Your task to perform on an android device: manage bookmarks in the chrome app Image 0: 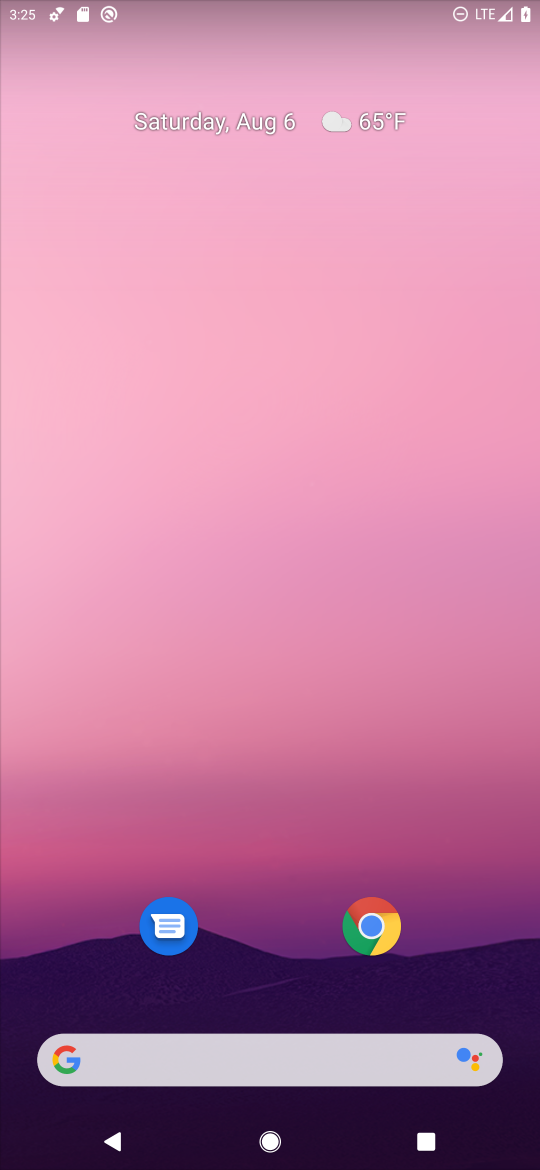
Step 0: click (413, 934)
Your task to perform on an android device: manage bookmarks in the chrome app Image 1: 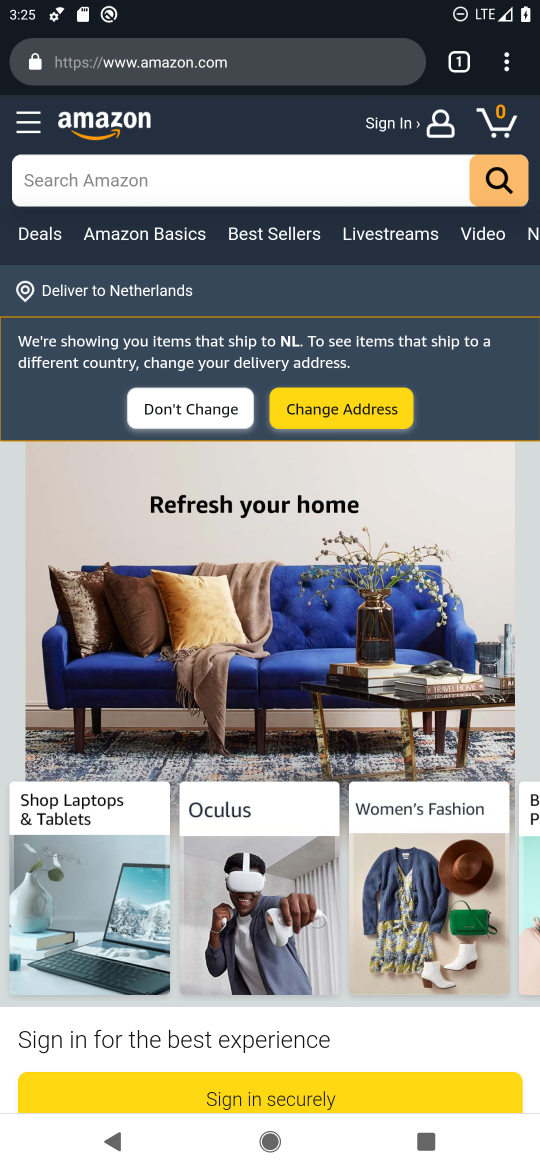
Step 1: click (489, 55)
Your task to perform on an android device: manage bookmarks in the chrome app Image 2: 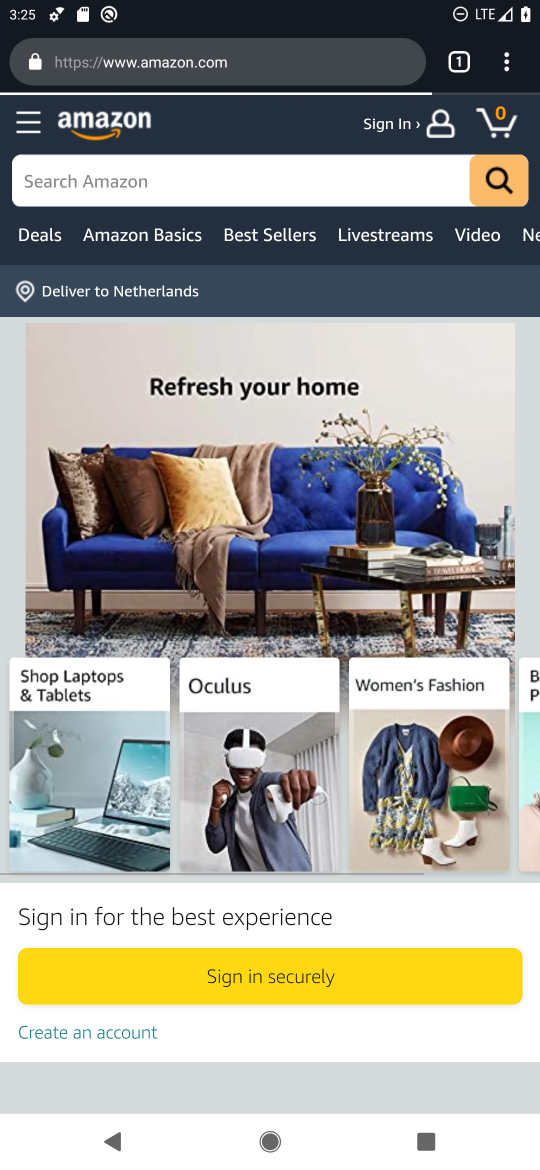
Step 2: click (508, 65)
Your task to perform on an android device: manage bookmarks in the chrome app Image 3: 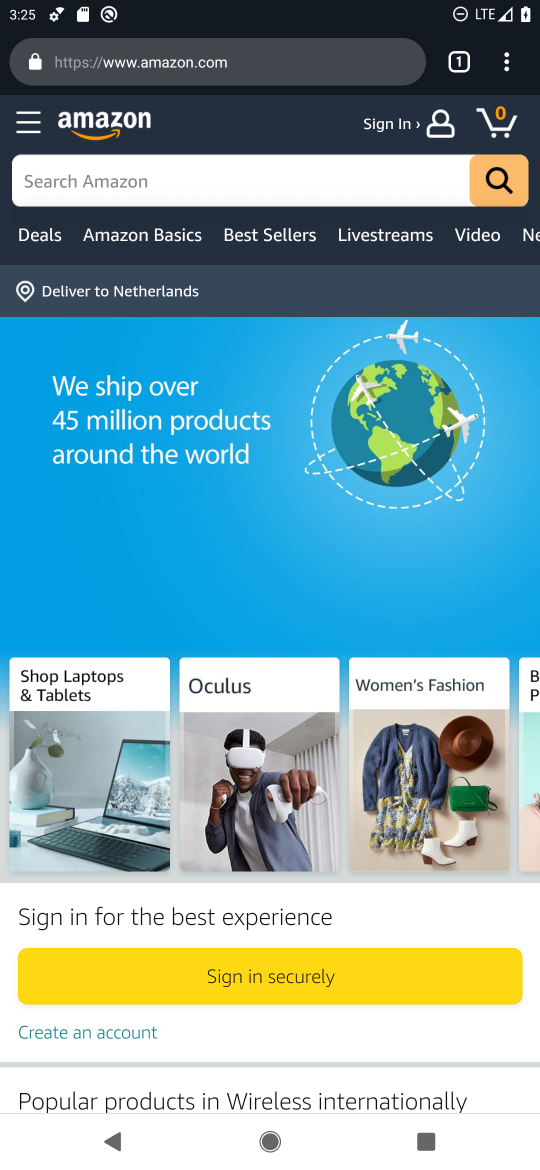
Step 3: click (501, 59)
Your task to perform on an android device: manage bookmarks in the chrome app Image 4: 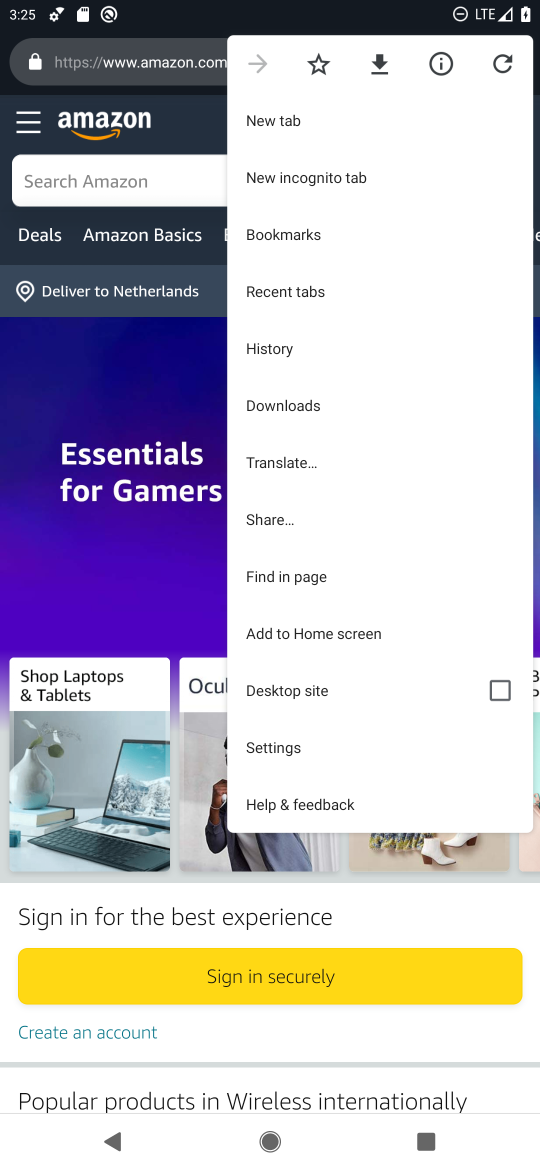
Step 4: click (290, 231)
Your task to perform on an android device: manage bookmarks in the chrome app Image 5: 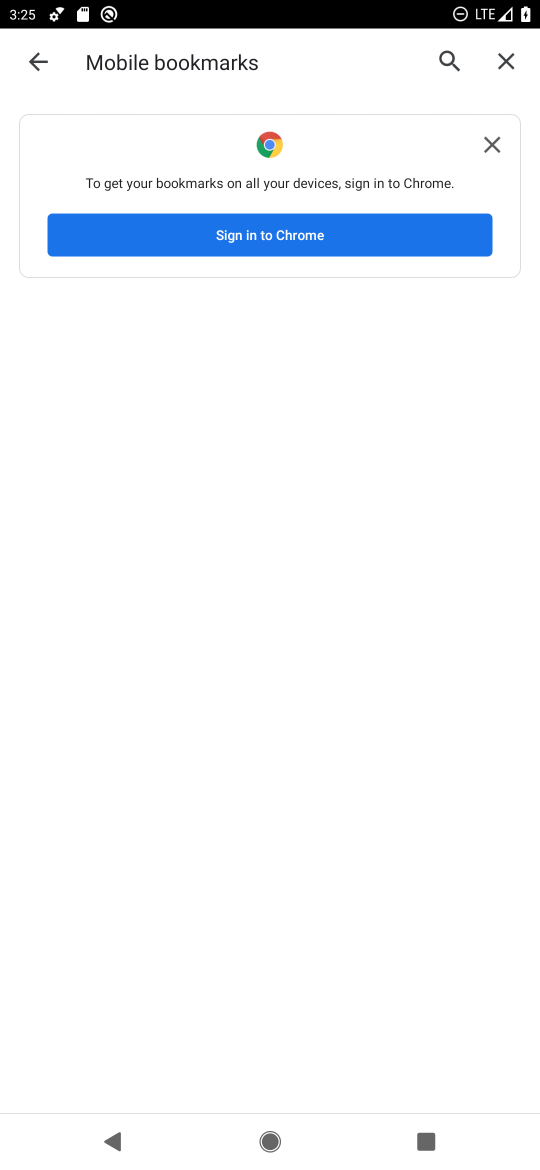
Step 5: task complete